Your task to perform on an android device: Open calendar and show me the fourth week of next month Image 0: 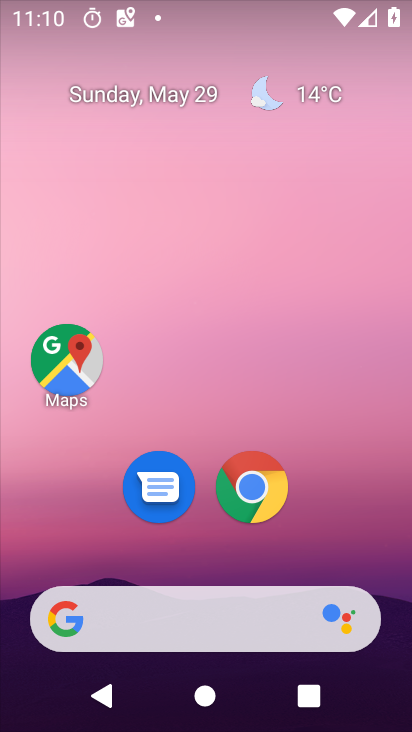
Step 0: drag from (391, 695) to (351, 210)
Your task to perform on an android device: Open calendar and show me the fourth week of next month Image 1: 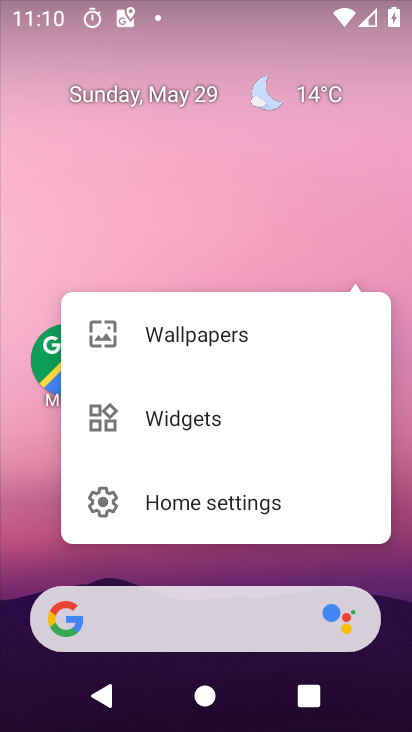
Step 1: press back button
Your task to perform on an android device: Open calendar and show me the fourth week of next month Image 2: 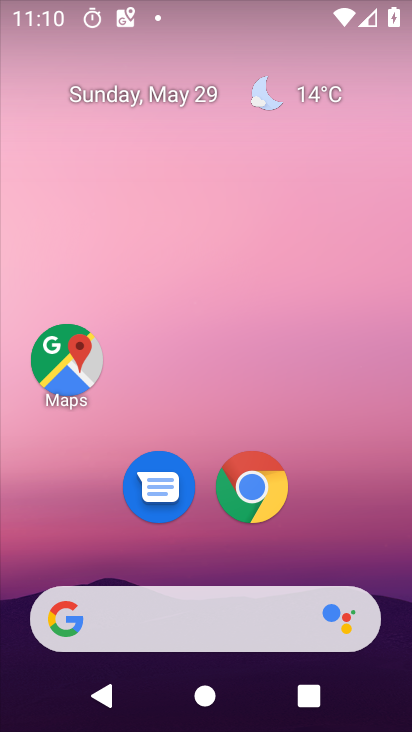
Step 2: drag from (395, 648) to (297, 100)
Your task to perform on an android device: Open calendar and show me the fourth week of next month Image 3: 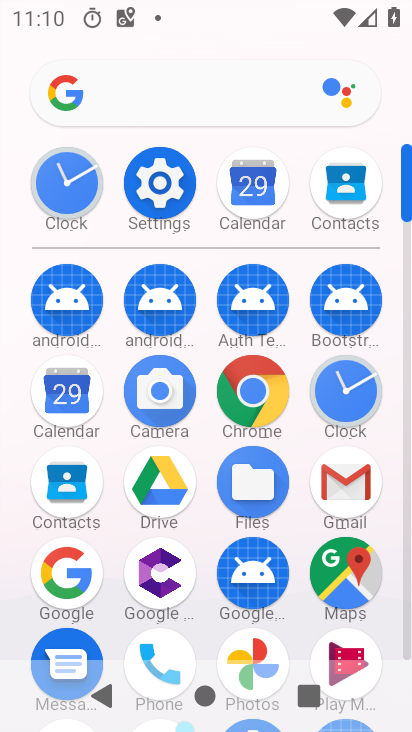
Step 3: click (75, 400)
Your task to perform on an android device: Open calendar and show me the fourth week of next month Image 4: 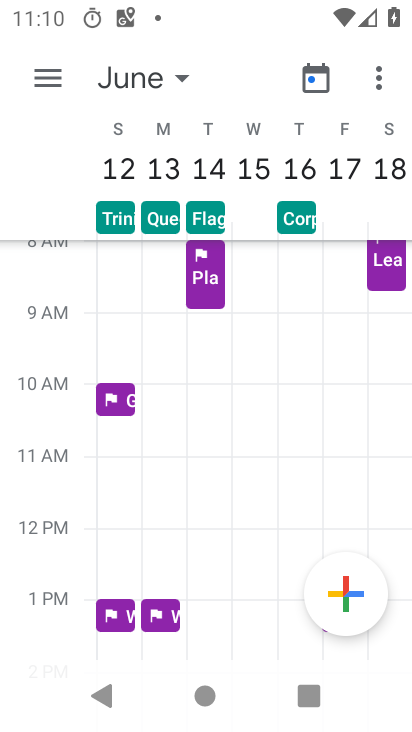
Step 4: click (181, 81)
Your task to perform on an android device: Open calendar and show me the fourth week of next month Image 5: 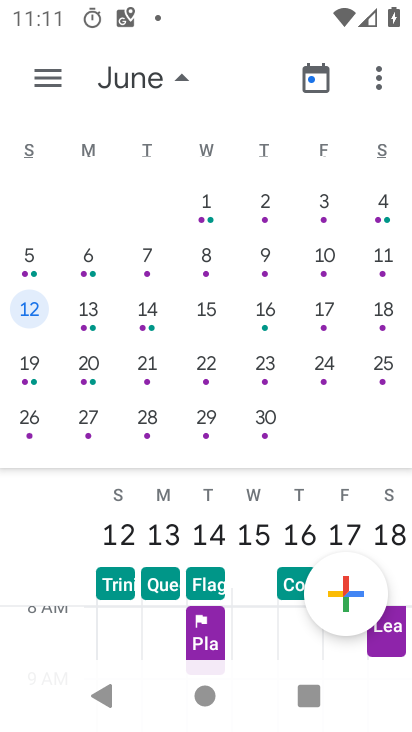
Step 5: click (270, 365)
Your task to perform on an android device: Open calendar and show me the fourth week of next month Image 6: 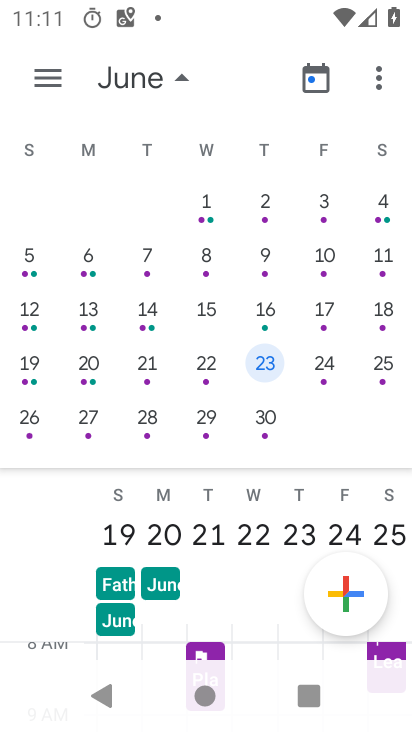
Step 6: task complete